Your task to perform on an android device: Open Amazon Image 0: 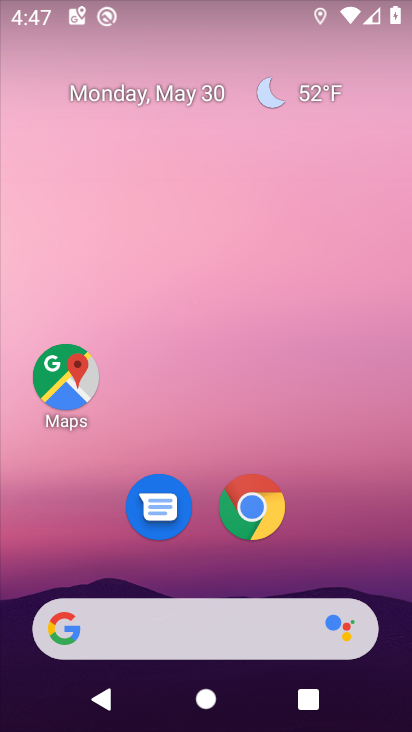
Step 0: press home button
Your task to perform on an android device: Open Amazon Image 1: 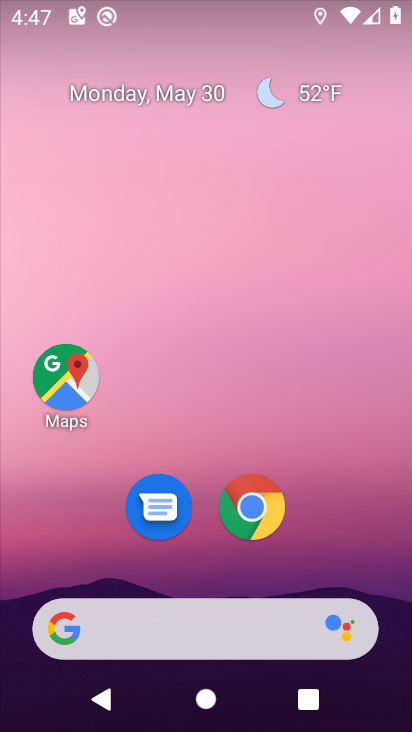
Step 1: drag from (368, 534) to (312, 167)
Your task to perform on an android device: Open Amazon Image 2: 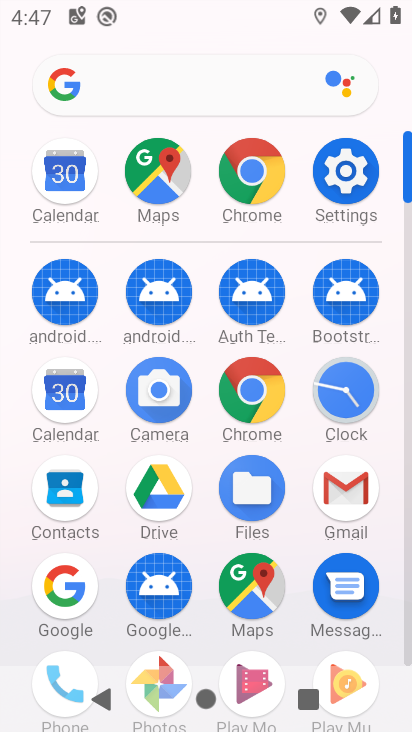
Step 2: click (246, 134)
Your task to perform on an android device: Open Amazon Image 3: 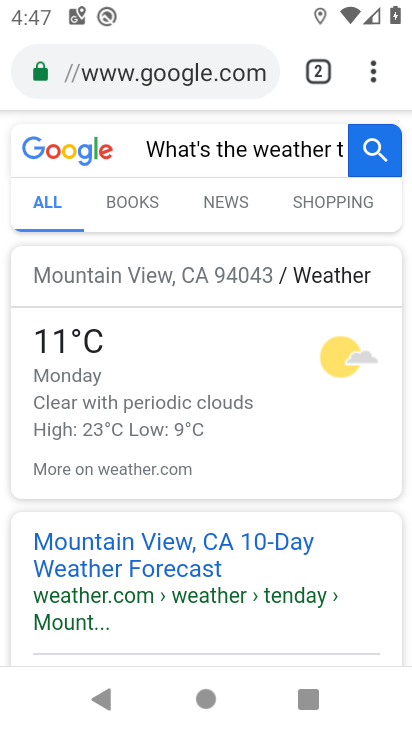
Step 3: click (373, 75)
Your task to perform on an android device: Open Amazon Image 4: 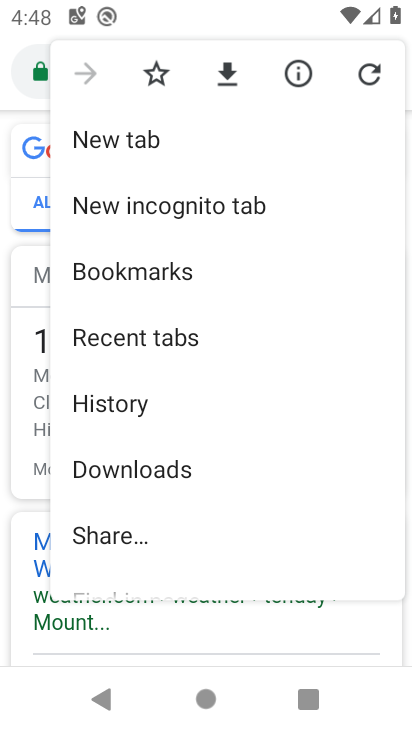
Step 4: click (145, 149)
Your task to perform on an android device: Open Amazon Image 5: 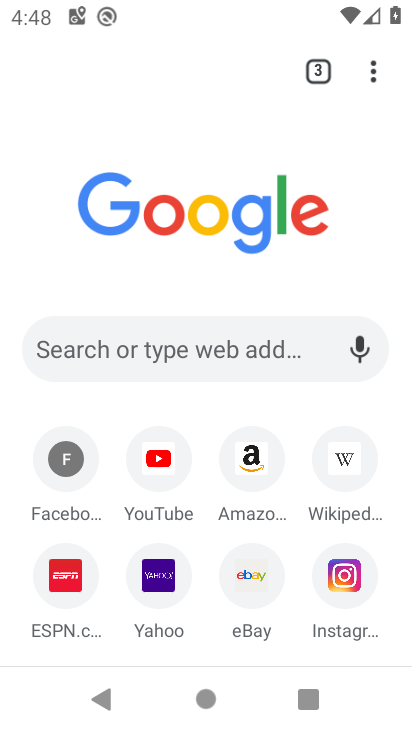
Step 5: click (259, 485)
Your task to perform on an android device: Open Amazon Image 6: 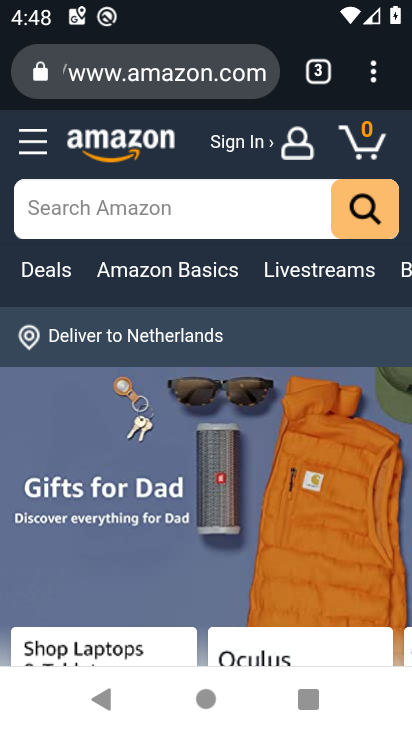
Step 6: task complete